Your task to perform on an android device: turn on airplane mode Image 0: 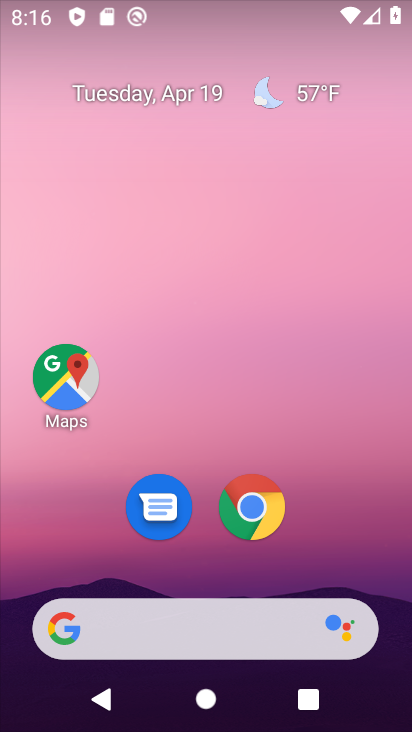
Step 0: drag from (346, 9) to (376, 536)
Your task to perform on an android device: turn on airplane mode Image 1: 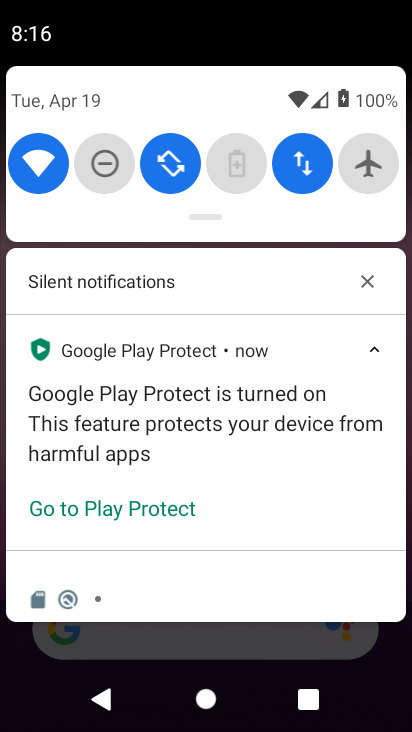
Step 1: click (370, 167)
Your task to perform on an android device: turn on airplane mode Image 2: 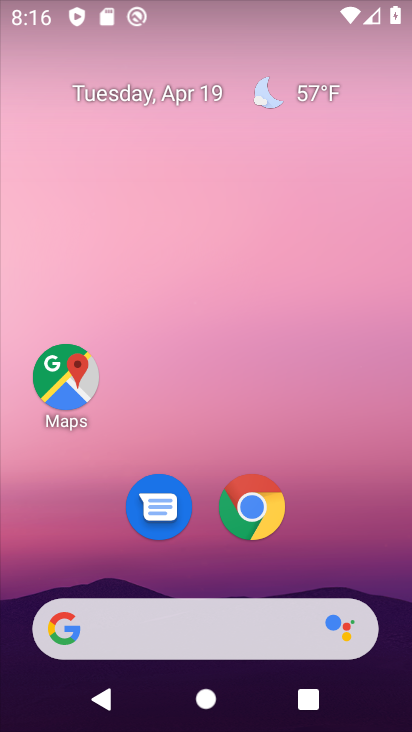
Step 2: task complete